Your task to perform on an android device: add a contact Image 0: 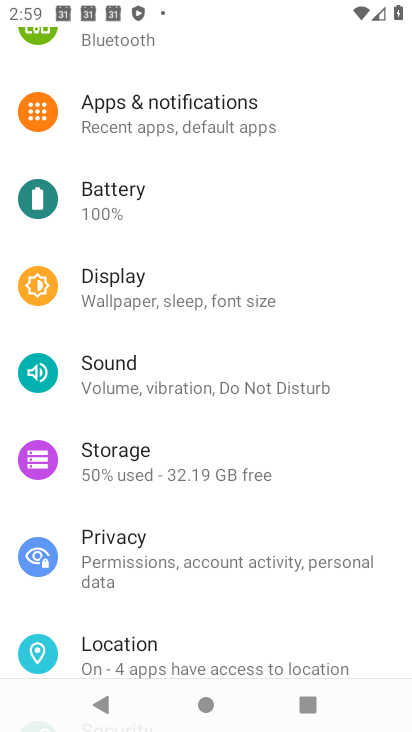
Step 0: drag from (226, 634) to (306, 325)
Your task to perform on an android device: add a contact Image 1: 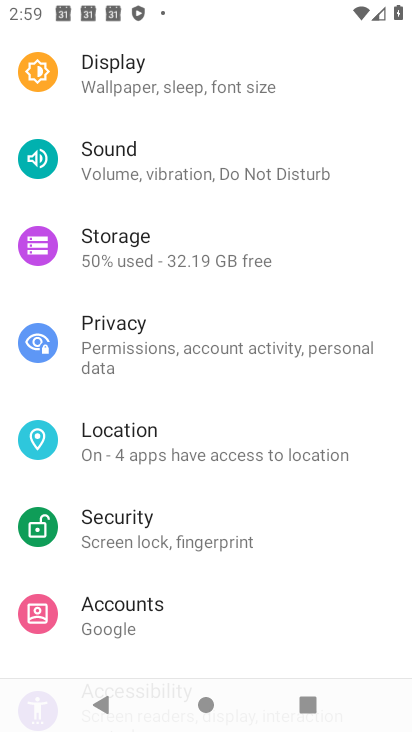
Step 1: press home button
Your task to perform on an android device: add a contact Image 2: 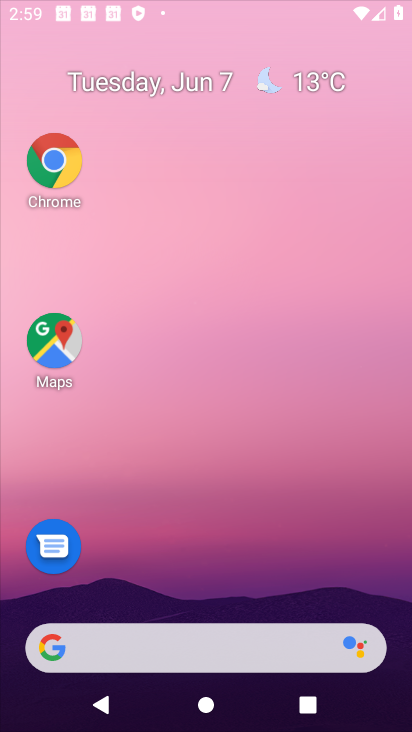
Step 2: drag from (198, 628) to (366, 131)
Your task to perform on an android device: add a contact Image 3: 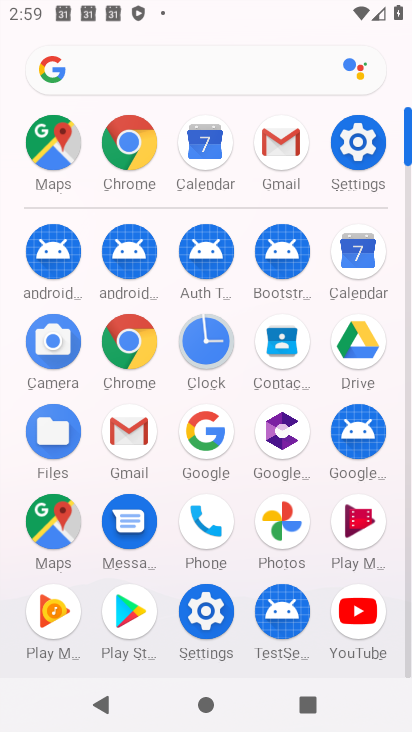
Step 3: click (258, 335)
Your task to perform on an android device: add a contact Image 4: 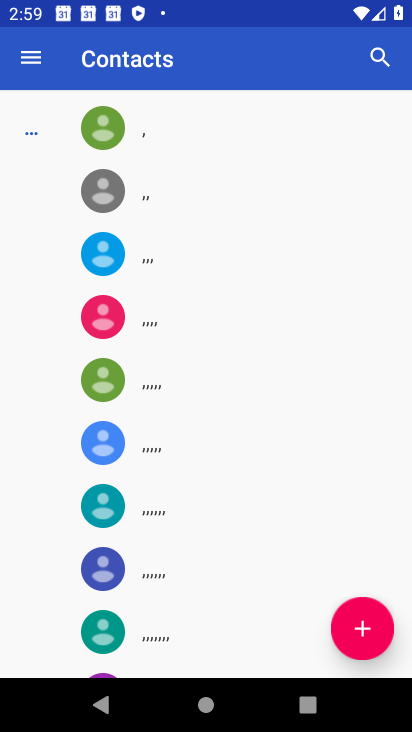
Step 4: drag from (223, 544) to (353, 101)
Your task to perform on an android device: add a contact Image 5: 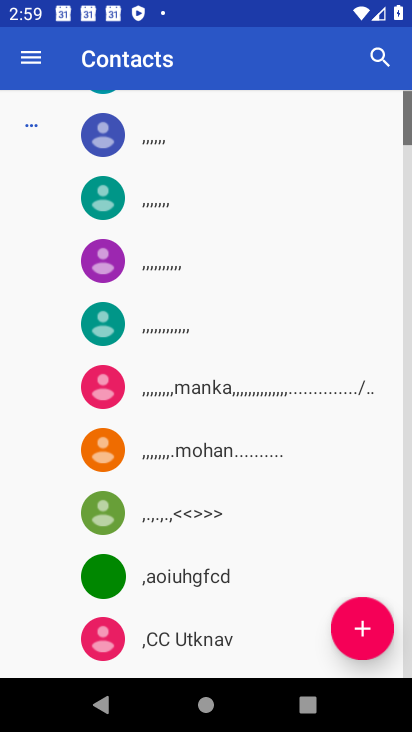
Step 5: click (365, 639)
Your task to perform on an android device: add a contact Image 6: 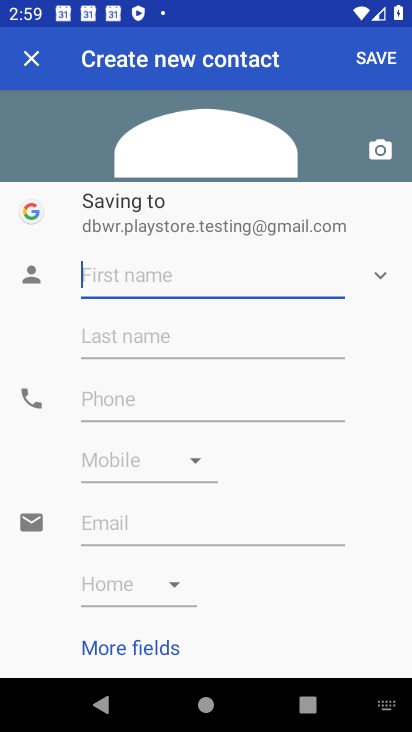
Step 6: type "xas"
Your task to perform on an android device: add a contact Image 7: 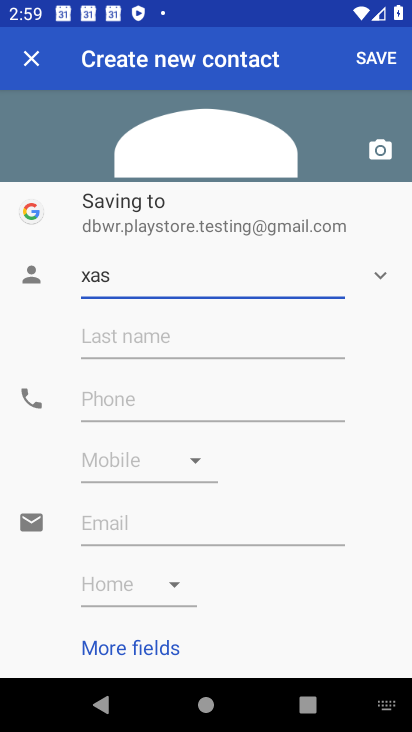
Step 7: click (375, 60)
Your task to perform on an android device: add a contact Image 8: 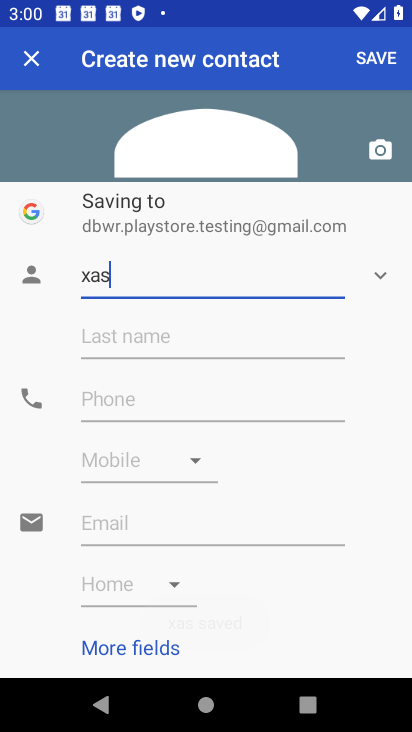
Step 8: task complete